Your task to perform on an android device: Go to Wikipedia Image 0: 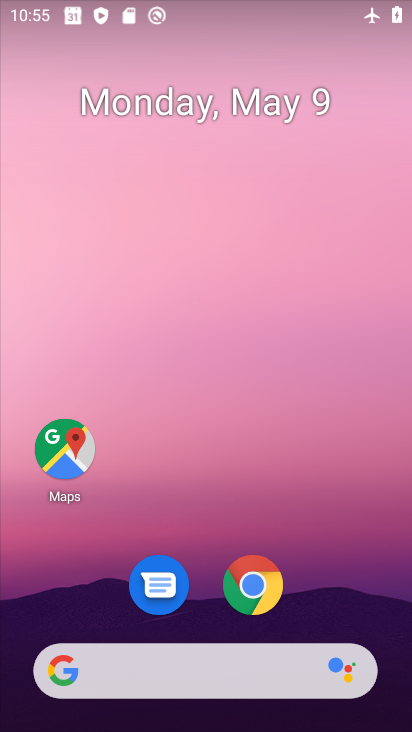
Step 0: click (258, 583)
Your task to perform on an android device: Go to Wikipedia Image 1: 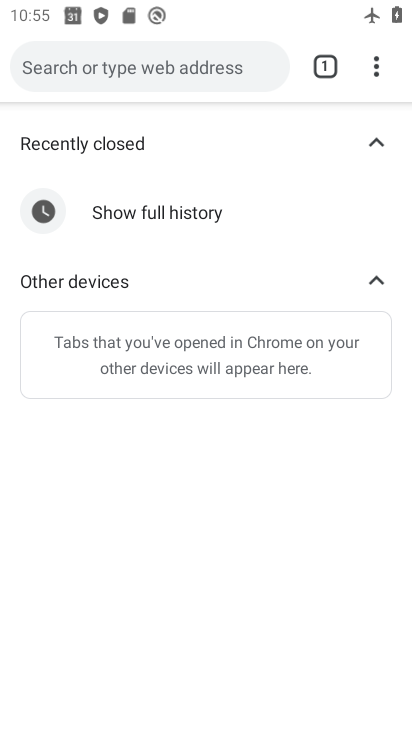
Step 1: drag from (369, 65) to (252, 116)
Your task to perform on an android device: Go to Wikipedia Image 2: 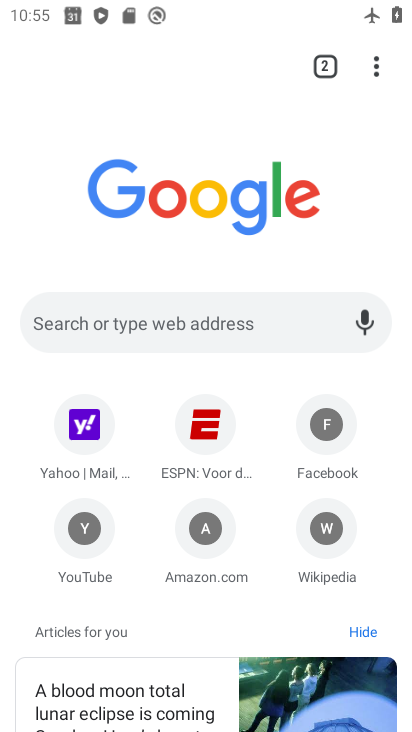
Step 2: click (85, 419)
Your task to perform on an android device: Go to Wikipedia Image 3: 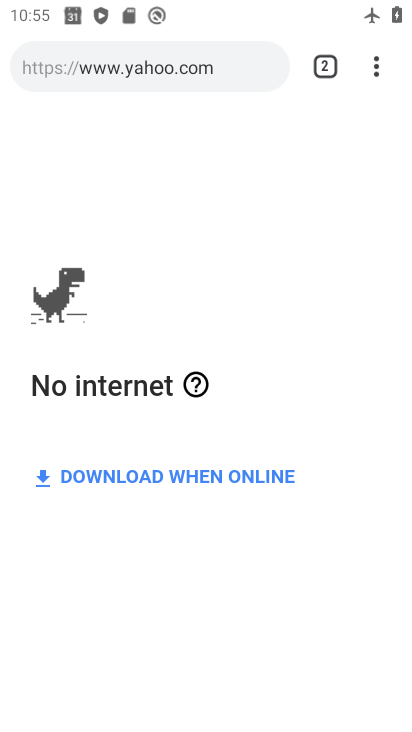
Step 3: task complete